Your task to perform on an android device: Turn off the flashlight Image 0: 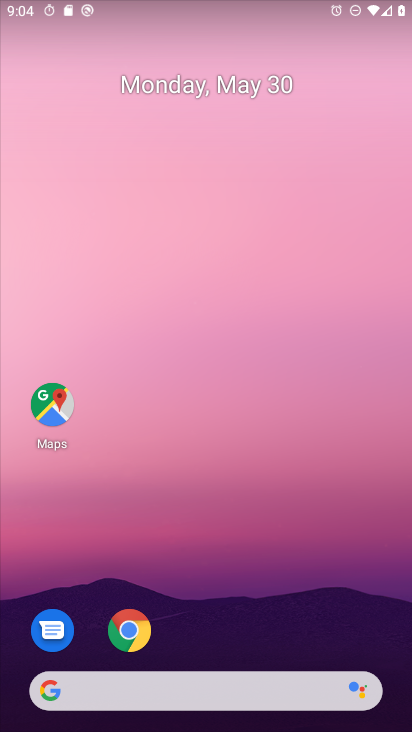
Step 0: drag from (382, 643) to (179, 21)
Your task to perform on an android device: Turn off the flashlight Image 1: 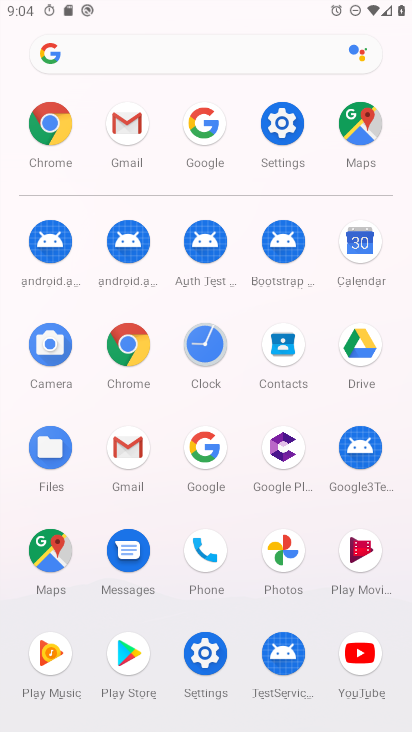
Step 1: click (290, 124)
Your task to perform on an android device: Turn off the flashlight Image 2: 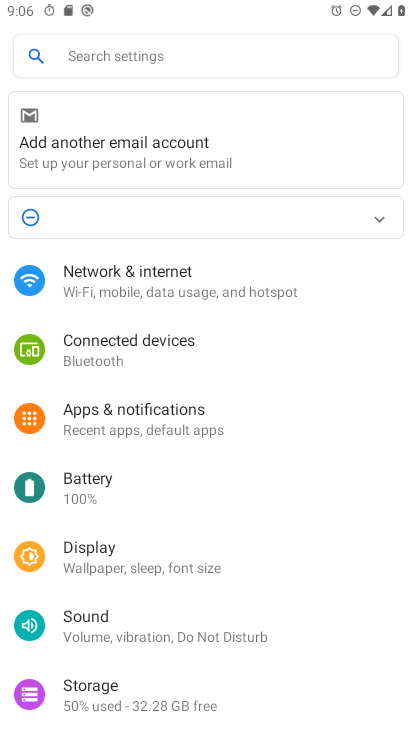
Step 2: task complete